Your task to perform on an android device: When is my next meeting? Image 0: 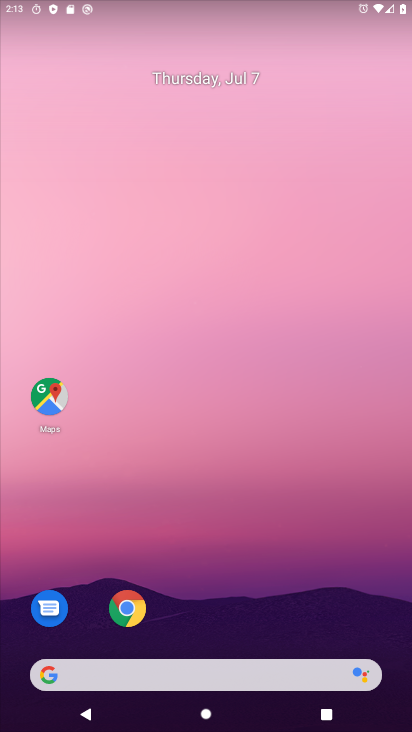
Step 0: drag from (259, 684) to (257, 69)
Your task to perform on an android device: When is my next meeting? Image 1: 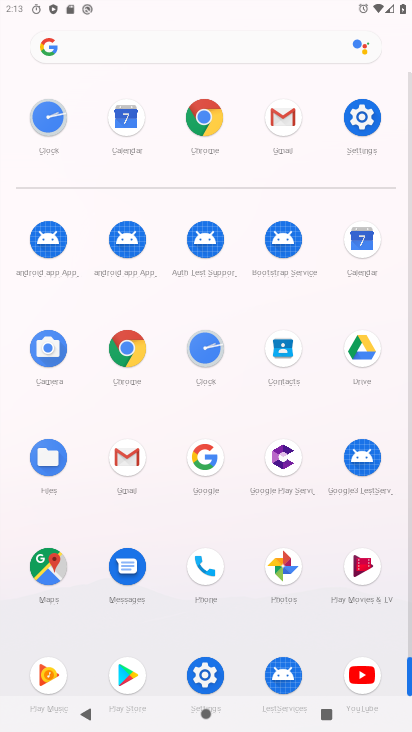
Step 1: click (369, 239)
Your task to perform on an android device: When is my next meeting? Image 2: 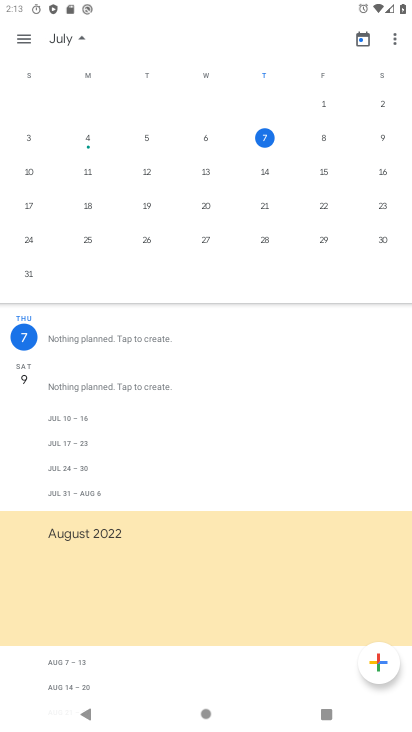
Step 2: click (327, 134)
Your task to perform on an android device: When is my next meeting? Image 3: 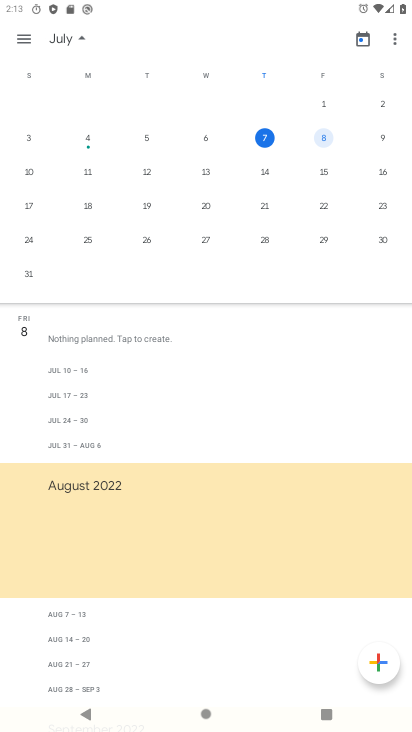
Step 3: click (322, 141)
Your task to perform on an android device: When is my next meeting? Image 4: 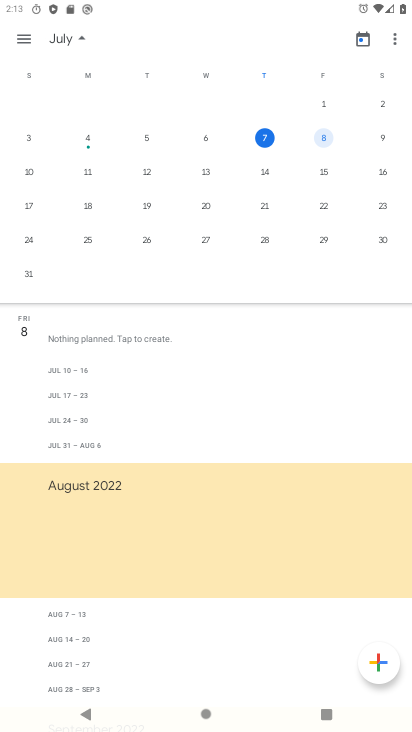
Step 4: click (62, 340)
Your task to perform on an android device: When is my next meeting? Image 5: 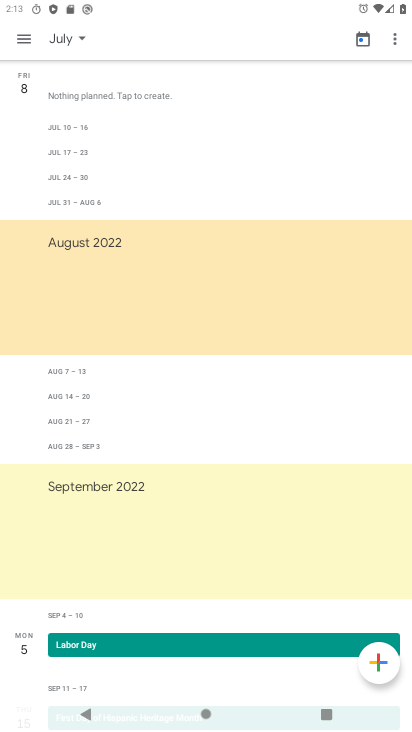
Step 5: task complete